Your task to perform on an android device: change keyboard looks Image 0: 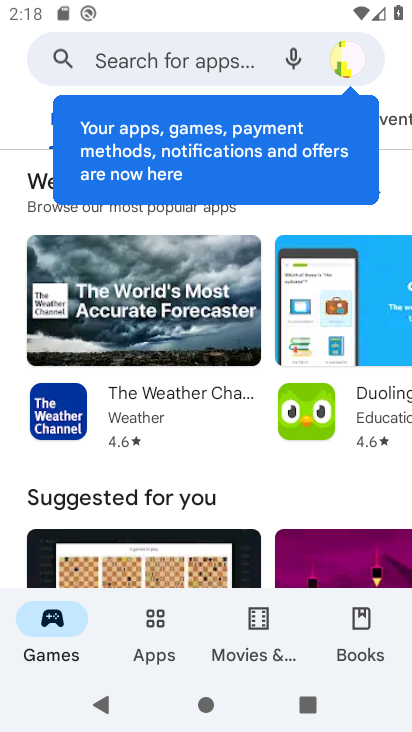
Step 0: press home button
Your task to perform on an android device: change keyboard looks Image 1: 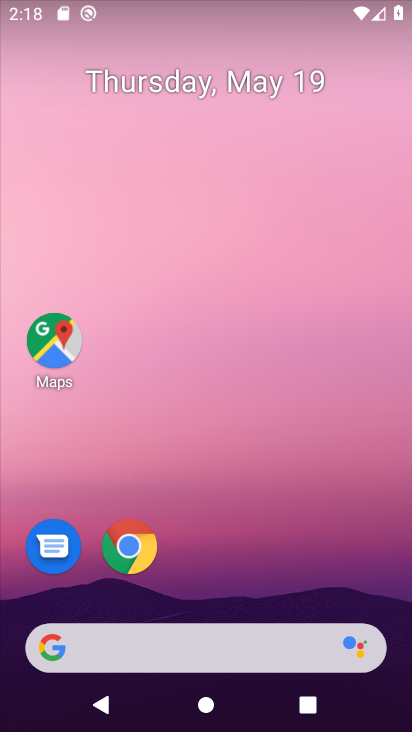
Step 1: drag from (224, 601) to (253, 76)
Your task to perform on an android device: change keyboard looks Image 2: 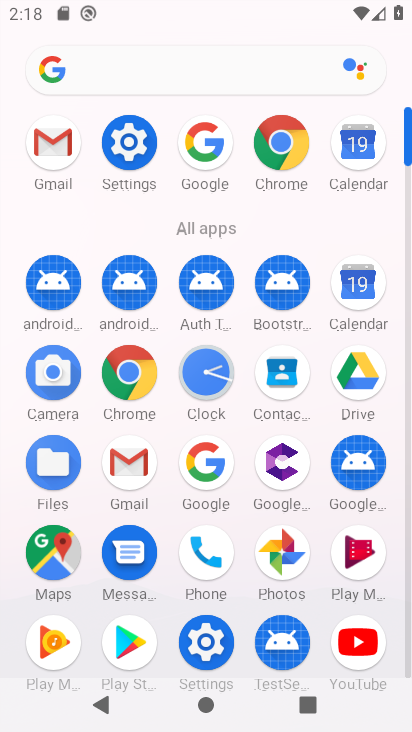
Step 2: click (129, 134)
Your task to perform on an android device: change keyboard looks Image 3: 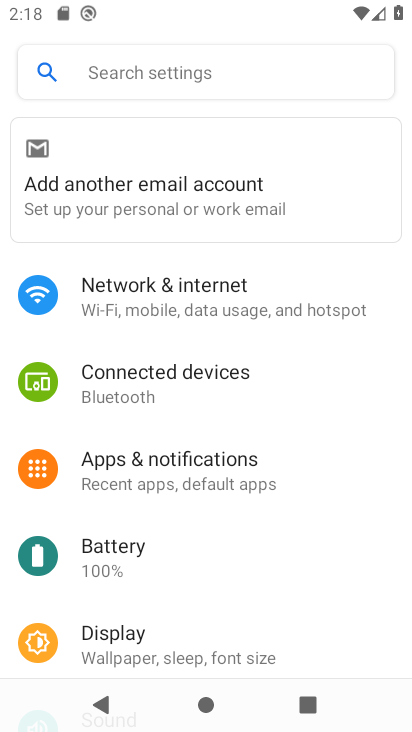
Step 3: drag from (220, 641) to (265, 98)
Your task to perform on an android device: change keyboard looks Image 4: 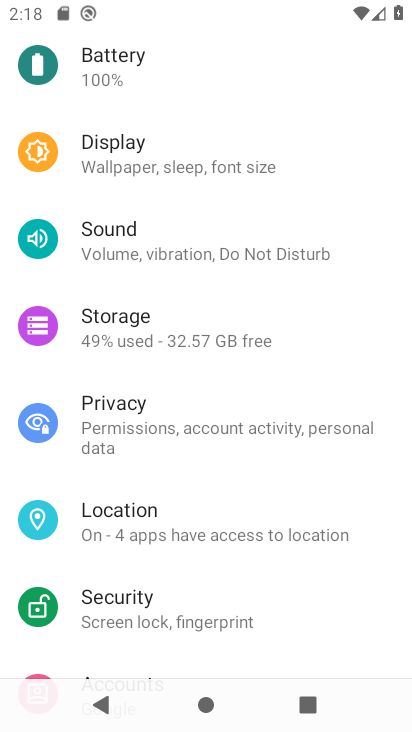
Step 4: drag from (209, 641) to (211, 112)
Your task to perform on an android device: change keyboard looks Image 5: 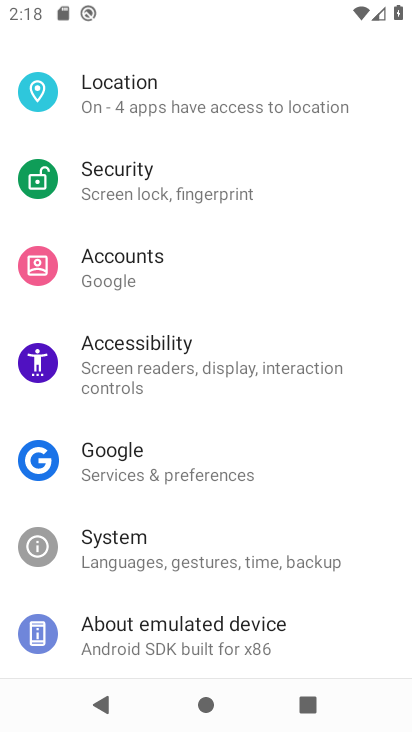
Step 5: click (179, 544)
Your task to perform on an android device: change keyboard looks Image 6: 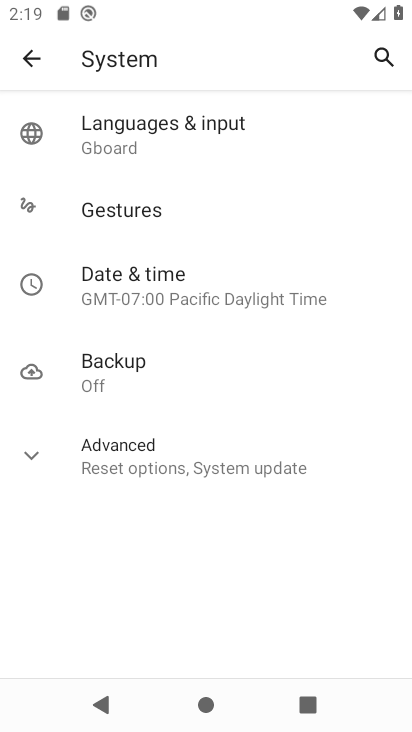
Step 6: click (156, 140)
Your task to perform on an android device: change keyboard looks Image 7: 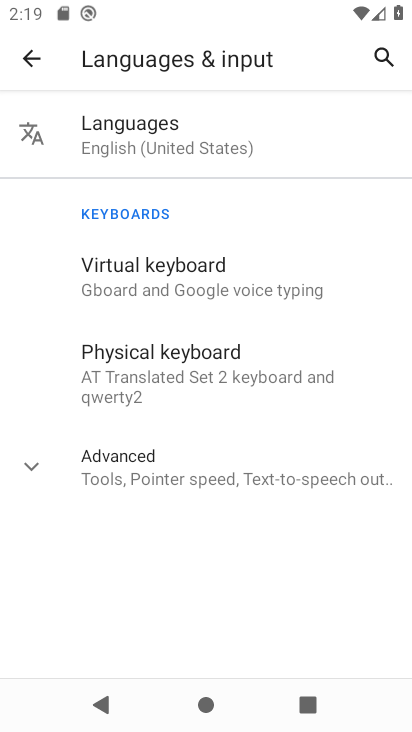
Step 7: click (57, 271)
Your task to perform on an android device: change keyboard looks Image 8: 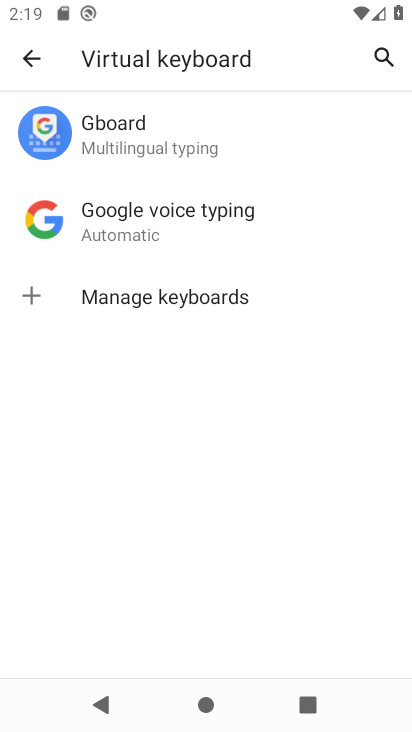
Step 8: click (161, 121)
Your task to perform on an android device: change keyboard looks Image 9: 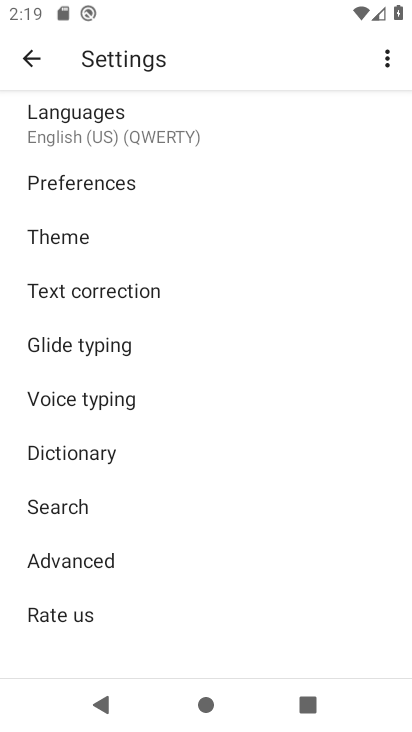
Step 9: click (107, 232)
Your task to perform on an android device: change keyboard looks Image 10: 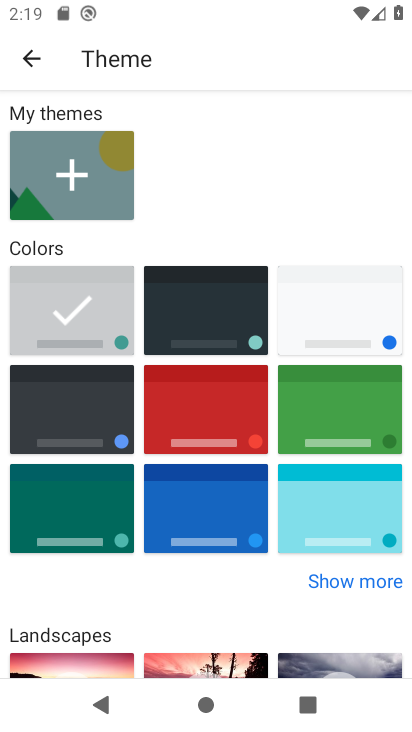
Step 10: click (75, 498)
Your task to perform on an android device: change keyboard looks Image 11: 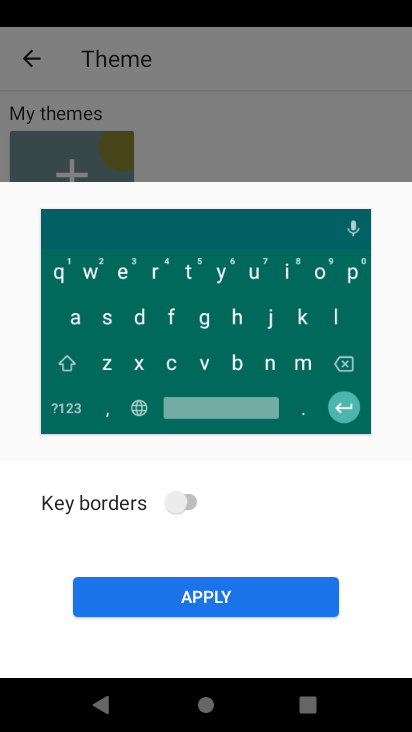
Step 11: click (209, 596)
Your task to perform on an android device: change keyboard looks Image 12: 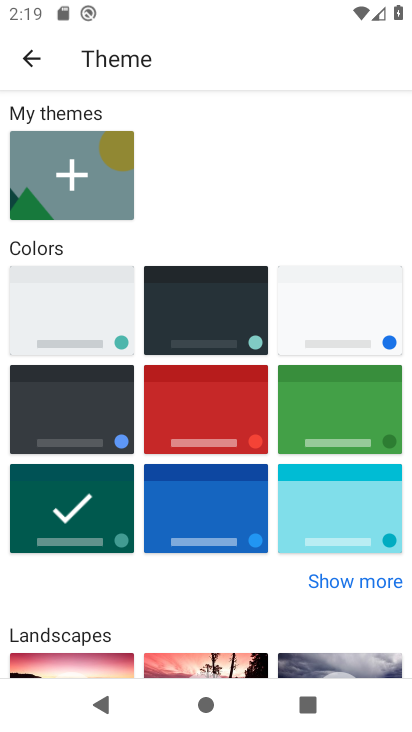
Step 12: task complete